Your task to perform on an android device: Check the weather Image 0: 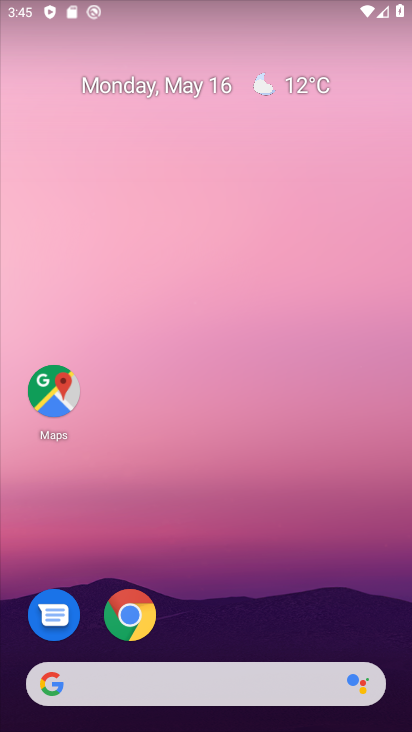
Step 0: drag from (323, 612) to (211, 23)
Your task to perform on an android device: Check the weather Image 1: 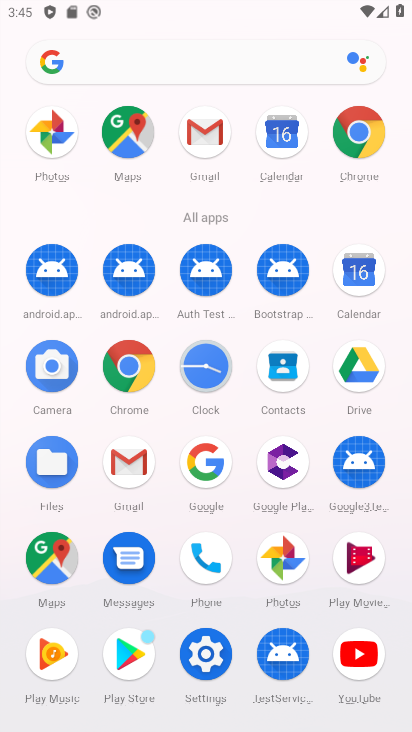
Step 1: press back button
Your task to perform on an android device: Check the weather Image 2: 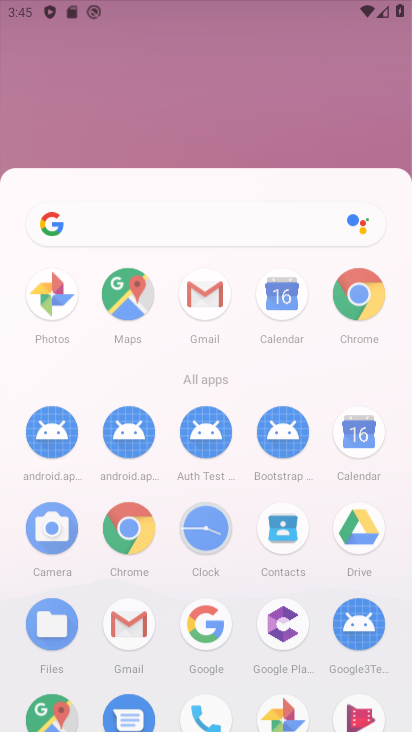
Step 2: press back button
Your task to perform on an android device: Check the weather Image 3: 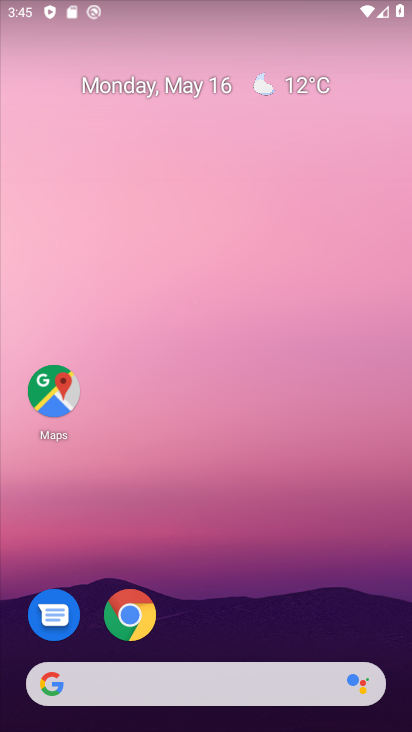
Step 3: drag from (12, 143) to (393, 332)
Your task to perform on an android device: Check the weather Image 4: 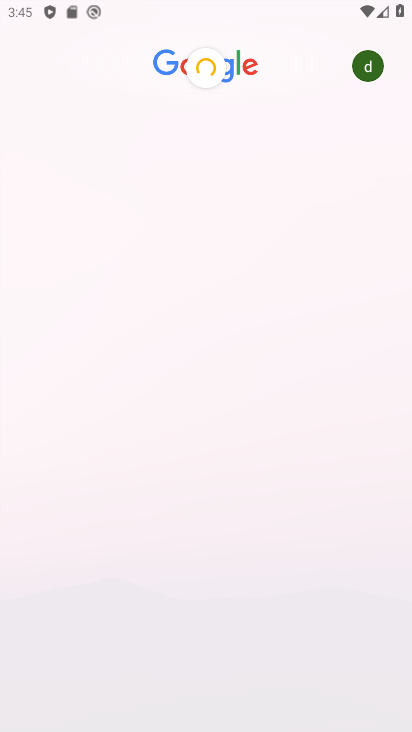
Step 4: drag from (7, 206) to (399, 440)
Your task to perform on an android device: Check the weather Image 5: 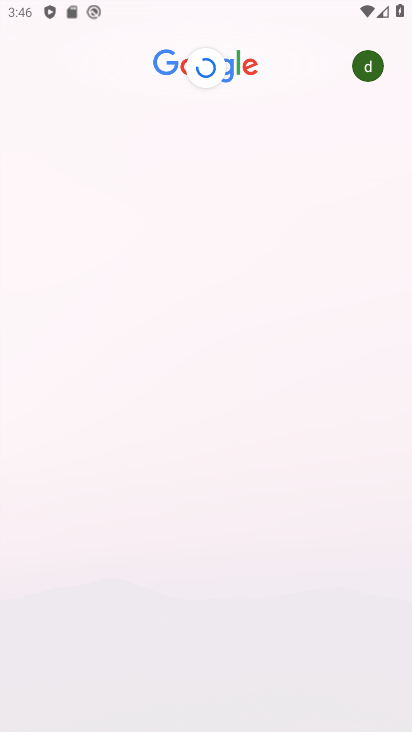
Step 5: drag from (13, 197) to (225, 348)
Your task to perform on an android device: Check the weather Image 6: 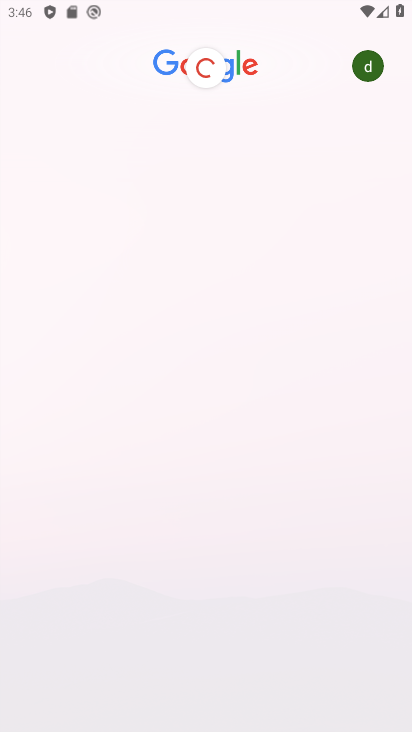
Step 6: drag from (12, 170) to (314, 339)
Your task to perform on an android device: Check the weather Image 7: 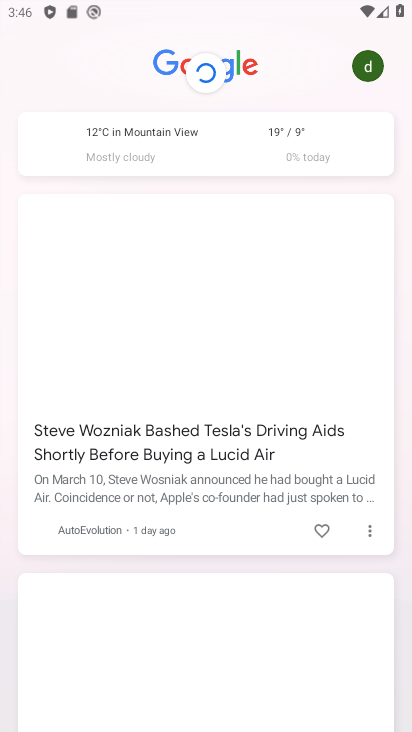
Step 7: drag from (113, 217) to (384, 341)
Your task to perform on an android device: Check the weather Image 8: 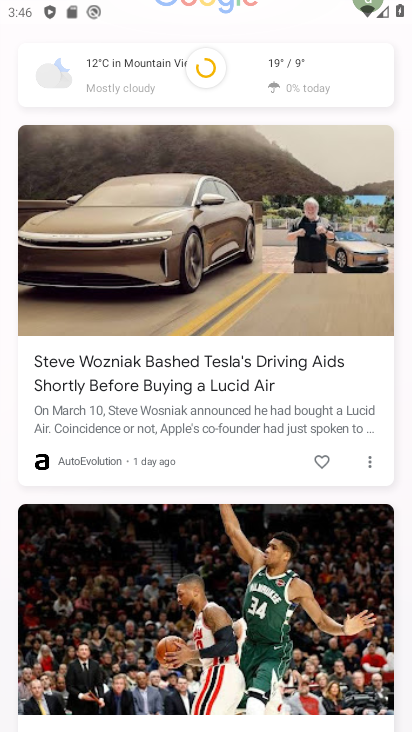
Step 8: click (152, 81)
Your task to perform on an android device: Check the weather Image 9: 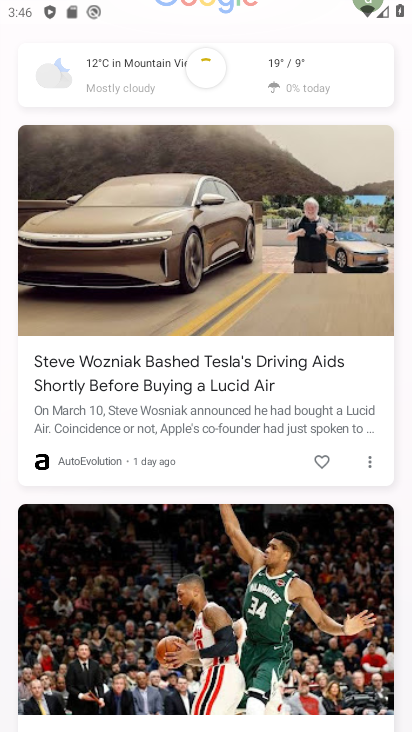
Step 9: click (154, 82)
Your task to perform on an android device: Check the weather Image 10: 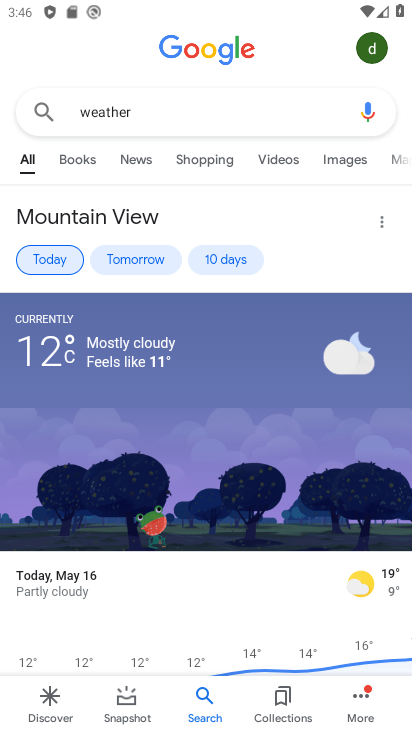
Step 10: drag from (230, 550) to (162, 184)
Your task to perform on an android device: Check the weather Image 11: 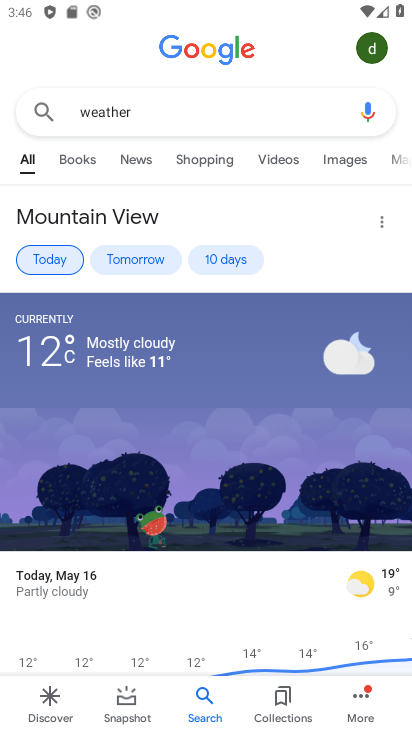
Step 11: drag from (159, 411) to (161, 46)
Your task to perform on an android device: Check the weather Image 12: 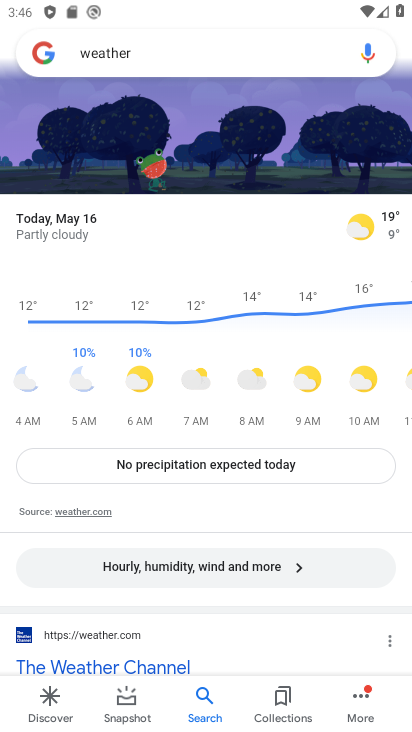
Step 12: drag from (238, 404) to (251, 27)
Your task to perform on an android device: Check the weather Image 13: 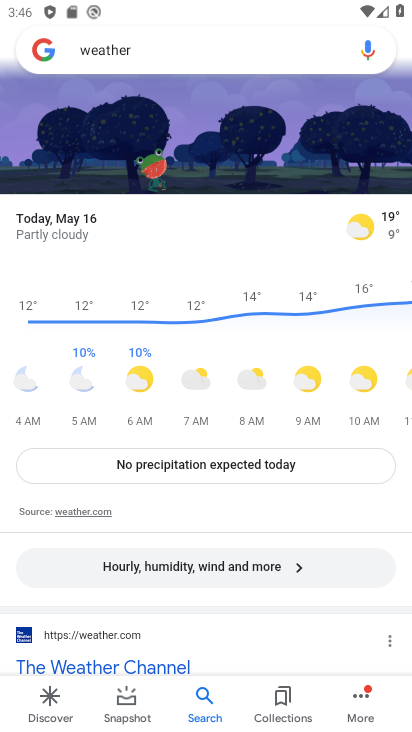
Step 13: click (269, 109)
Your task to perform on an android device: Check the weather Image 14: 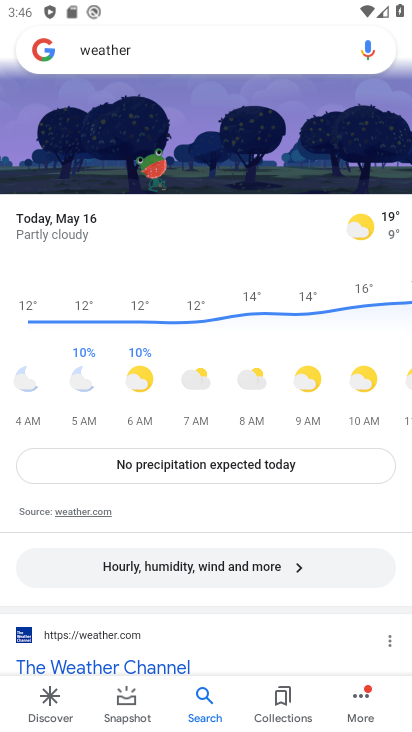
Step 14: drag from (249, 486) to (234, 65)
Your task to perform on an android device: Check the weather Image 15: 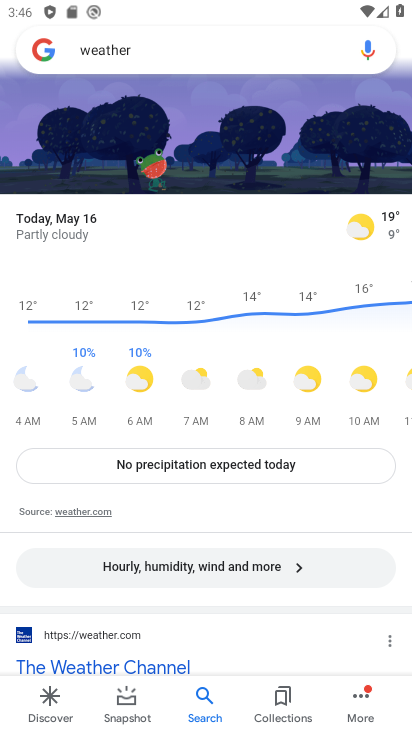
Step 15: drag from (266, 462) to (239, 67)
Your task to perform on an android device: Check the weather Image 16: 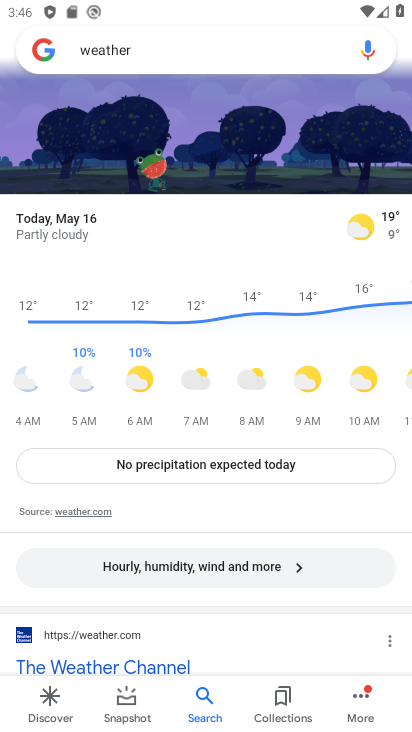
Step 16: drag from (267, 517) to (285, 11)
Your task to perform on an android device: Check the weather Image 17: 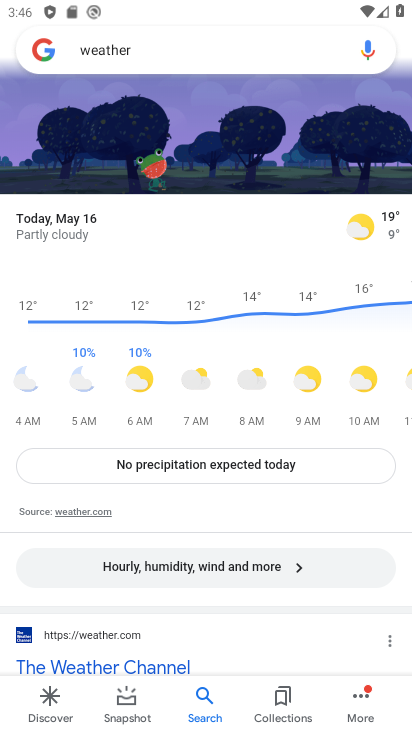
Step 17: drag from (259, 371) to (262, 78)
Your task to perform on an android device: Check the weather Image 18: 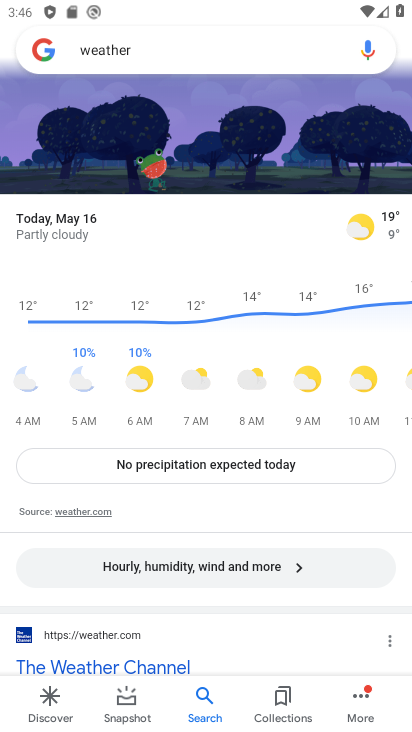
Step 18: drag from (246, 463) to (201, 148)
Your task to perform on an android device: Check the weather Image 19: 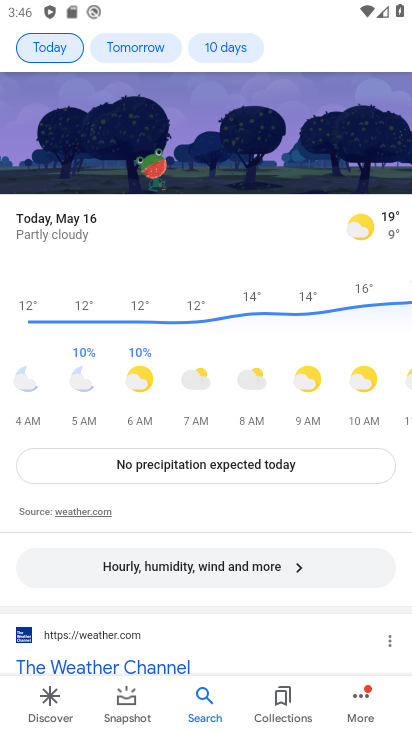
Step 19: drag from (169, 402) to (167, 122)
Your task to perform on an android device: Check the weather Image 20: 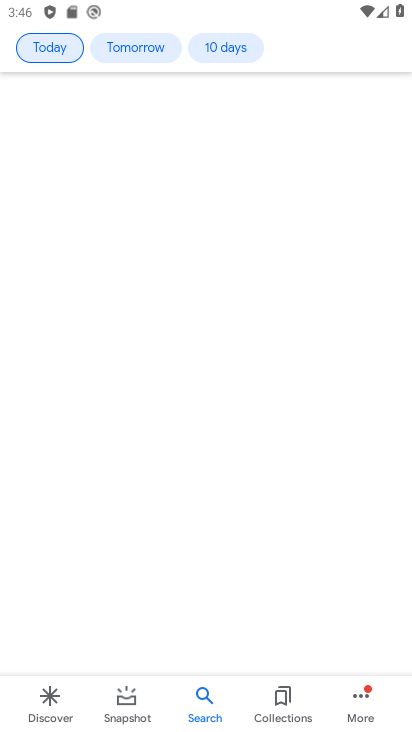
Step 20: drag from (217, 417) to (239, 82)
Your task to perform on an android device: Check the weather Image 21: 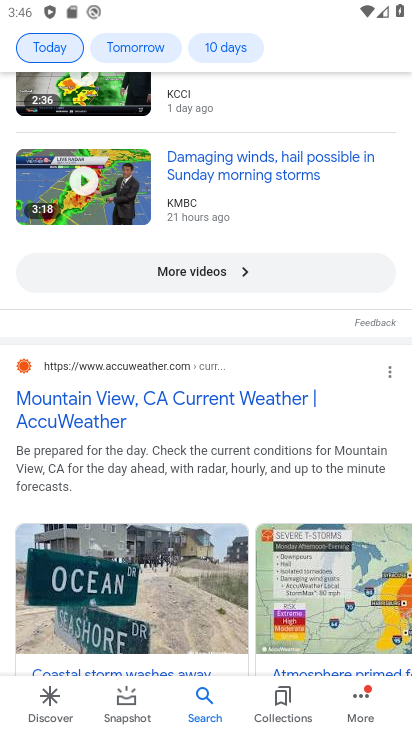
Step 21: drag from (153, 262) to (246, 541)
Your task to perform on an android device: Check the weather Image 22: 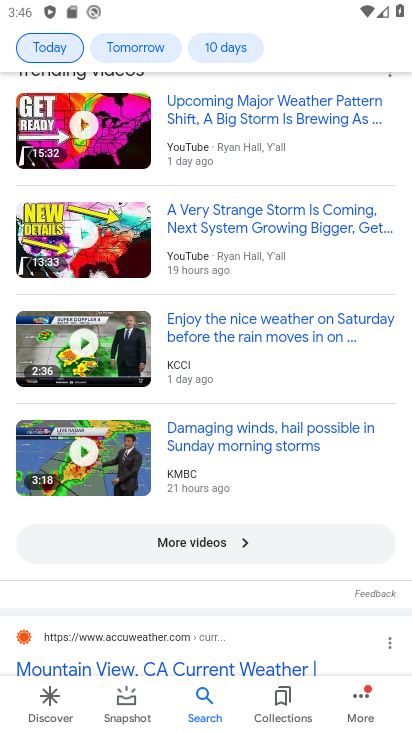
Step 22: drag from (166, 224) to (200, 479)
Your task to perform on an android device: Check the weather Image 23: 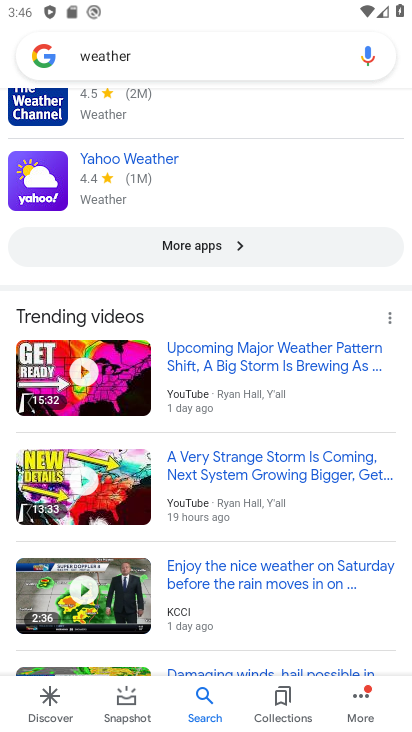
Step 23: click (201, 501)
Your task to perform on an android device: Check the weather Image 24: 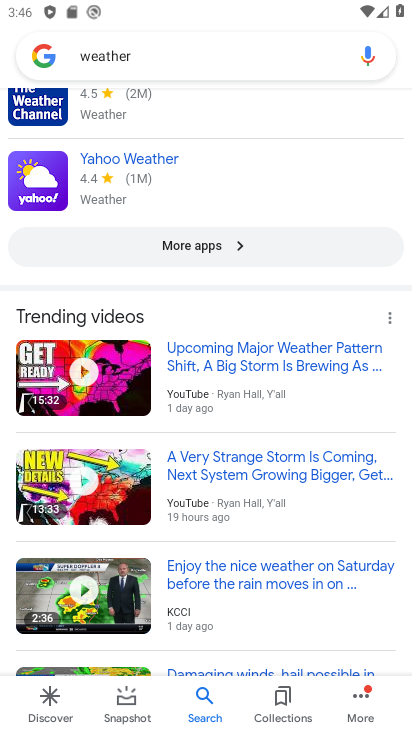
Step 24: task complete